Your task to perform on an android device: toggle improve location accuracy Image 0: 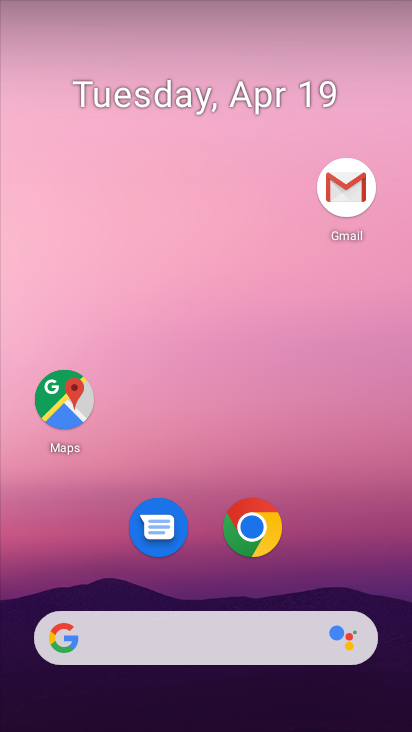
Step 0: drag from (342, 336) to (302, 73)
Your task to perform on an android device: toggle improve location accuracy Image 1: 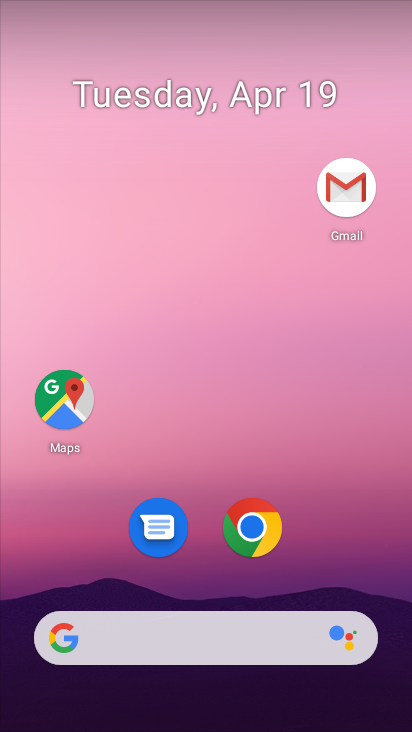
Step 1: drag from (369, 564) to (306, 90)
Your task to perform on an android device: toggle improve location accuracy Image 2: 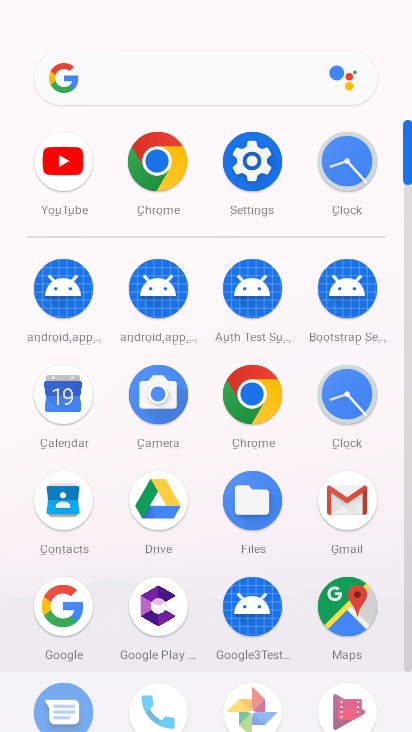
Step 2: click (256, 167)
Your task to perform on an android device: toggle improve location accuracy Image 3: 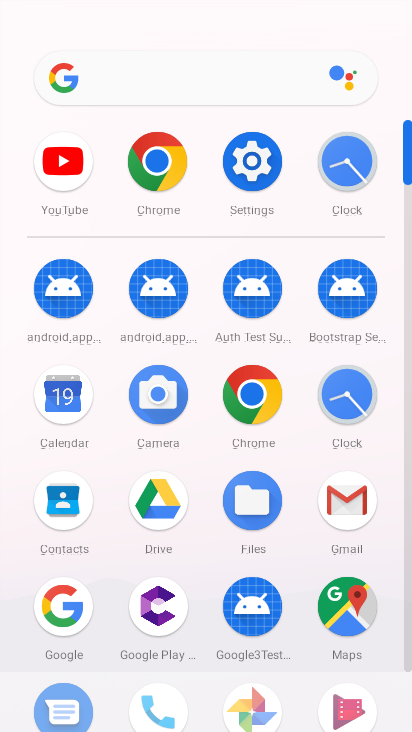
Step 3: click (256, 176)
Your task to perform on an android device: toggle improve location accuracy Image 4: 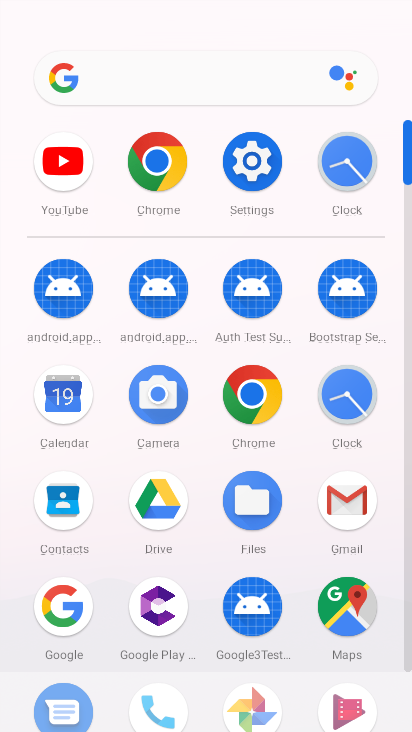
Step 4: click (255, 176)
Your task to perform on an android device: toggle improve location accuracy Image 5: 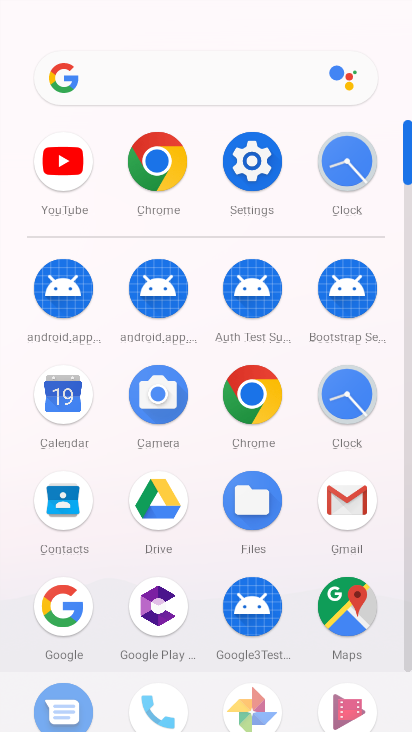
Step 5: click (253, 172)
Your task to perform on an android device: toggle improve location accuracy Image 6: 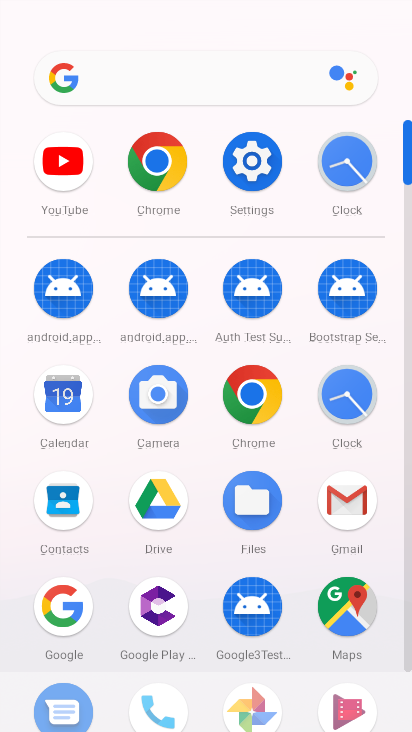
Step 6: drag from (276, 522) to (291, 265)
Your task to perform on an android device: toggle improve location accuracy Image 7: 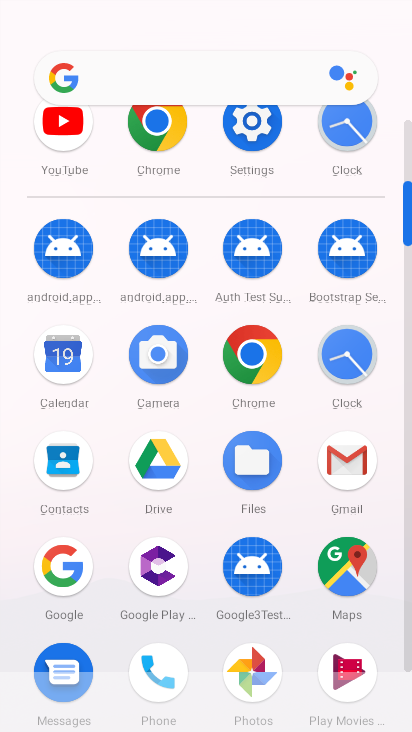
Step 7: click (247, 144)
Your task to perform on an android device: toggle improve location accuracy Image 8: 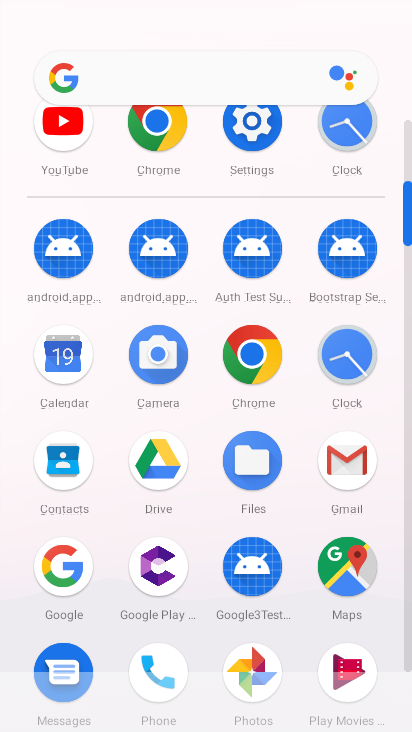
Step 8: drag from (292, 618) to (307, 248)
Your task to perform on an android device: toggle improve location accuracy Image 9: 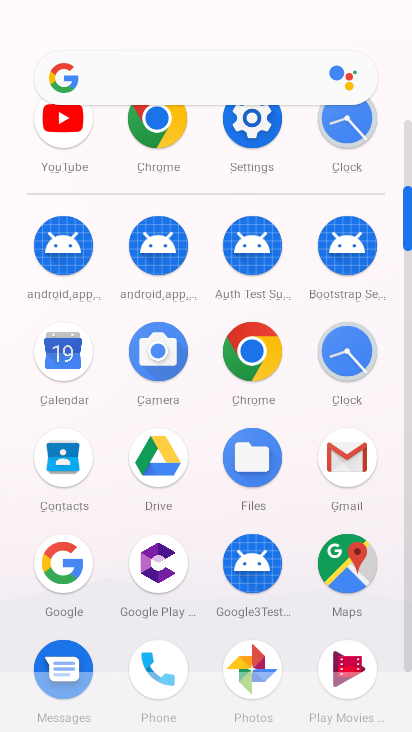
Step 9: drag from (287, 605) to (309, 190)
Your task to perform on an android device: toggle improve location accuracy Image 10: 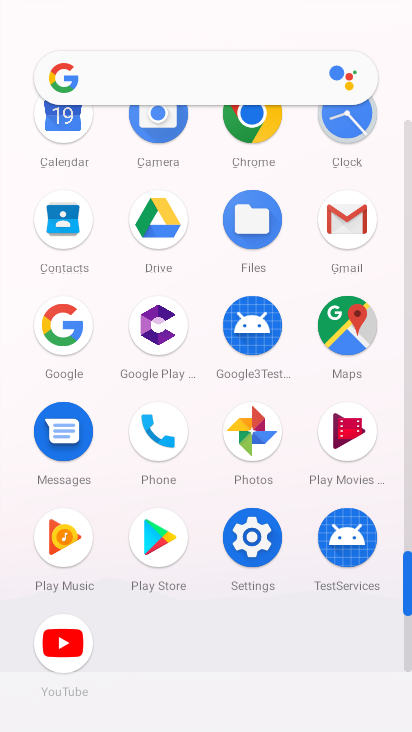
Step 10: click (252, 553)
Your task to perform on an android device: toggle improve location accuracy Image 11: 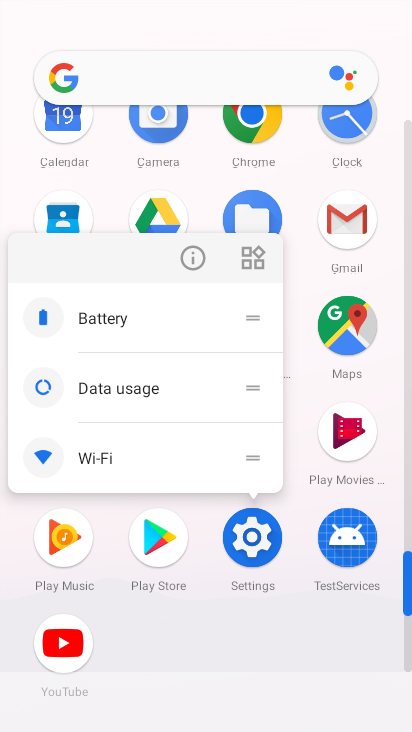
Step 11: click (252, 553)
Your task to perform on an android device: toggle improve location accuracy Image 12: 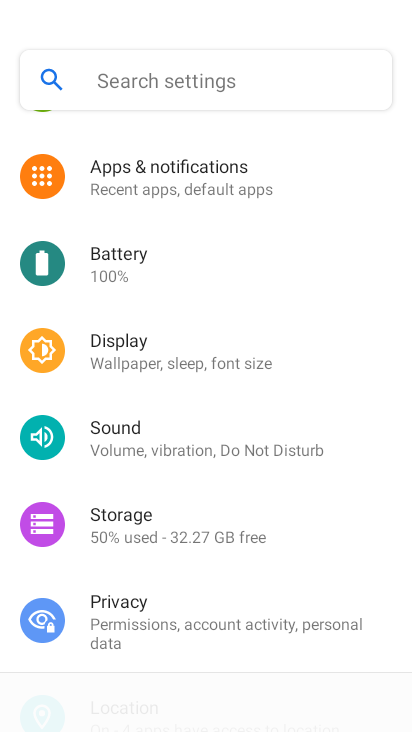
Step 12: drag from (310, 549) to (344, 148)
Your task to perform on an android device: toggle improve location accuracy Image 13: 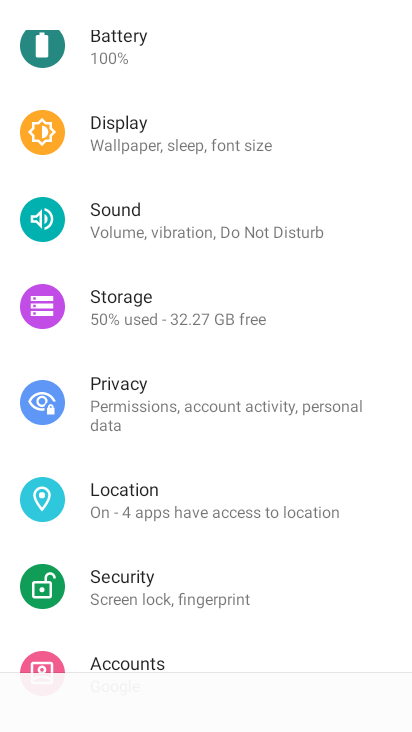
Step 13: click (188, 507)
Your task to perform on an android device: toggle improve location accuracy Image 14: 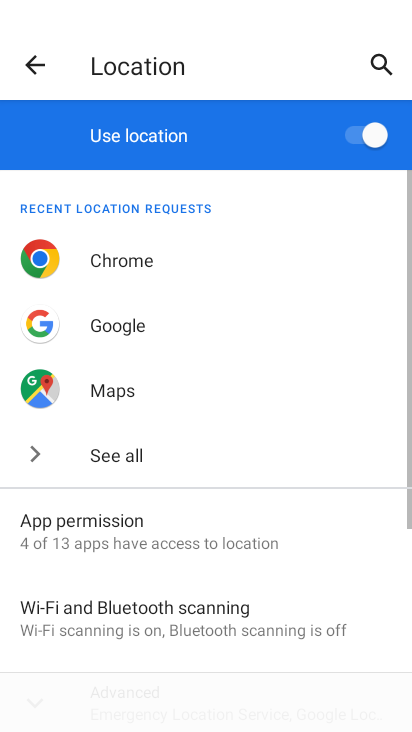
Step 14: drag from (357, 553) to (311, 284)
Your task to perform on an android device: toggle improve location accuracy Image 15: 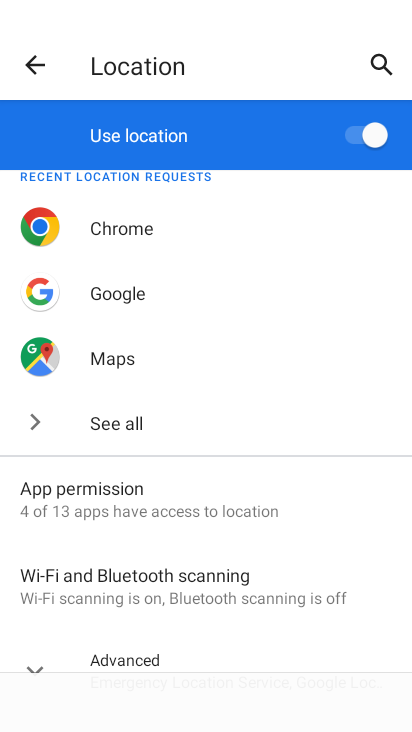
Step 15: drag from (288, 635) to (305, 262)
Your task to perform on an android device: toggle improve location accuracy Image 16: 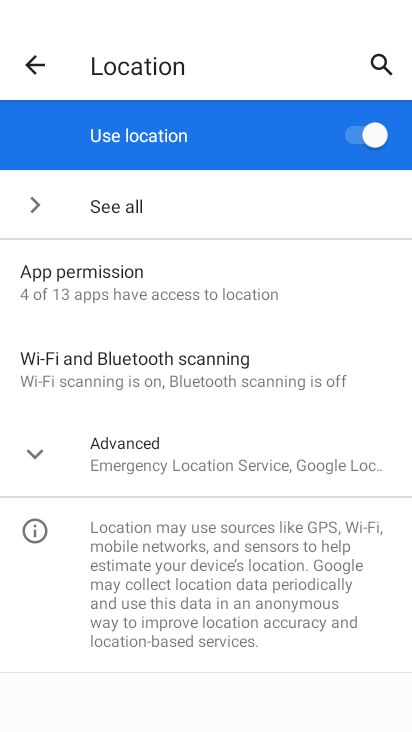
Step 16: click (176, 460)
Your task to perform on an android device: toggle improve location accuracy Image 17: 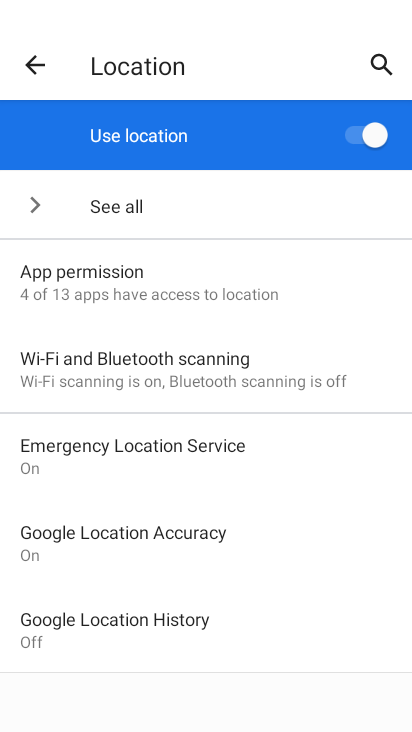
Step 17: click (183, 545)
Your task to perform on an android device: toggle improve location accuracy Image 18: 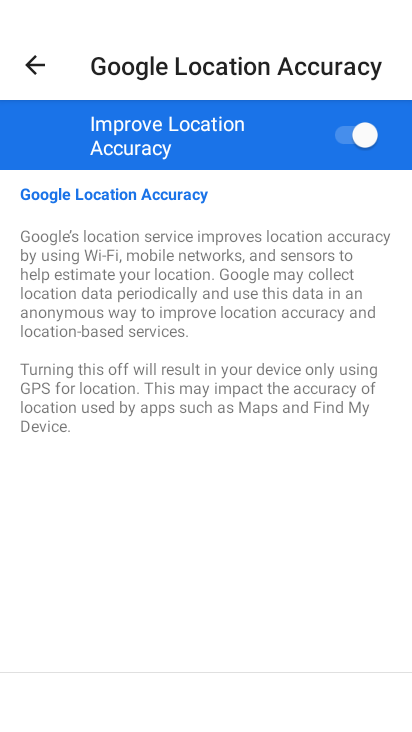
Step 18: click (338, 142)
Your task to perform on an android device: toggle improve location accuracy Image 19: 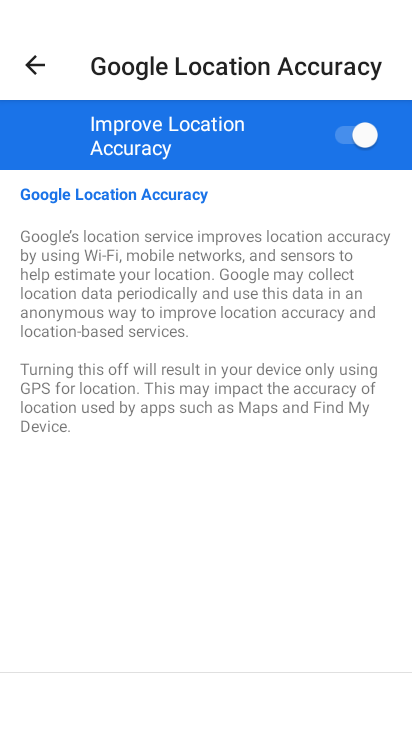
Step 19: click (344, 142)
Your task to perform on an android device: toggle improve location accuracy Image 20: 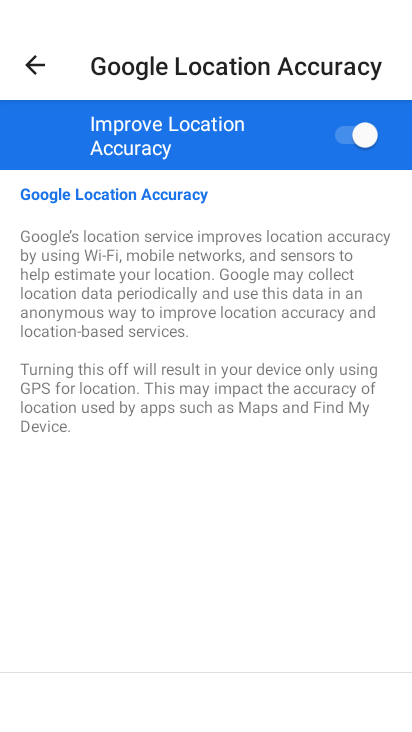
Step 20: click (344, 133)
Your task to perform on an android device: toggle improve location accuracy Image 21: 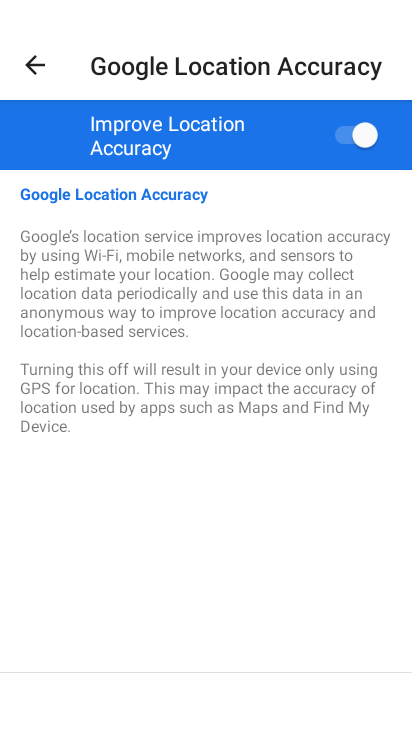
Step 21: click (344, 133)
Your task to perform on an android device: toggle improve location accuracy Image 22: 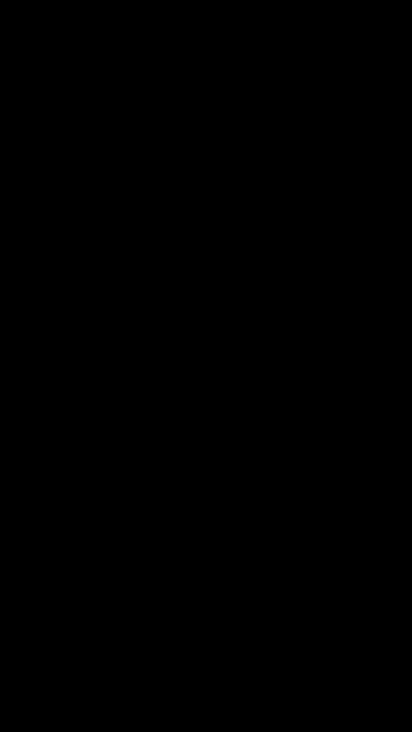
Step 22: task complete